Your task to perform on an android device: open app "Messenger Lite" (install if not already installed) and go to login screen Image 0: 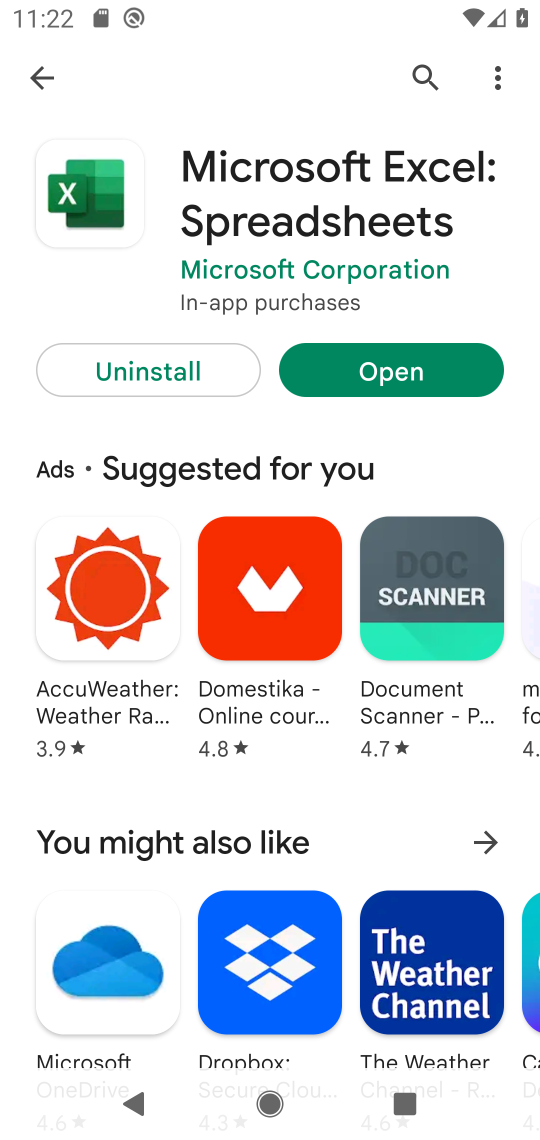
Step 0: click (427, 86)
Your task to perform on an android device: open app "Messenger Lite" (install if not already installed) and go to login screen Image 1: 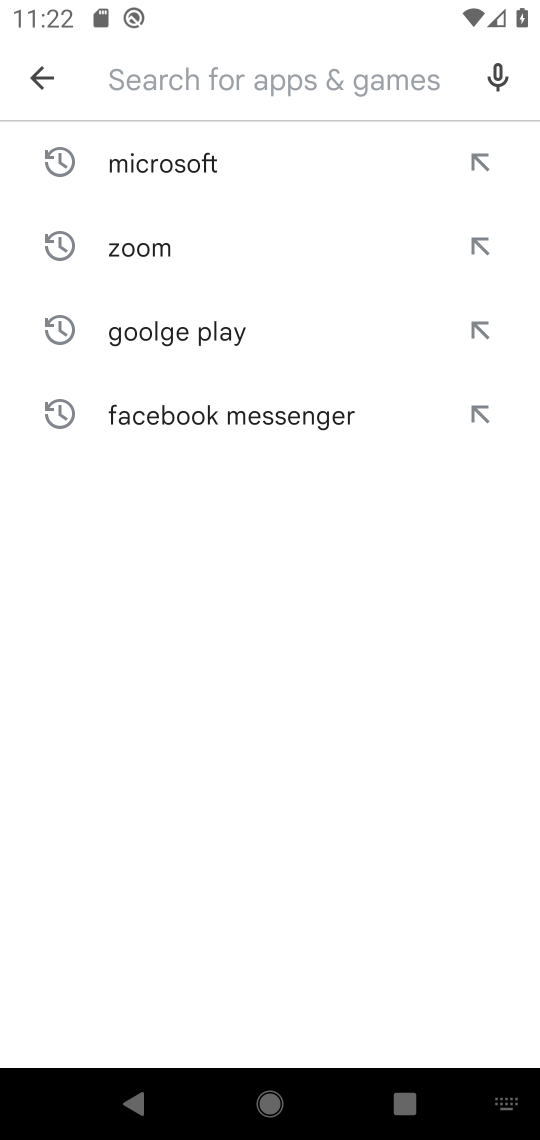
Step 1: type "messenger"
Your task to perform on an android device: open app "Messenger Lite" (install if not already installed) and go to login screen Image 2: 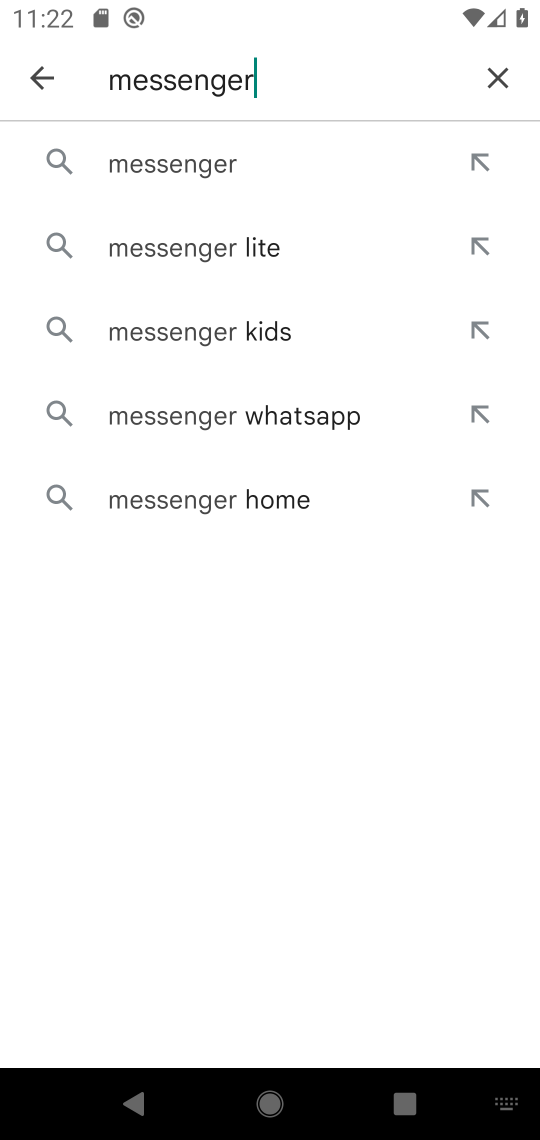
Step 2: click (212, 240)
Your task to perform on an android device: open app "Messenger Lite" (install if not already installed) and go to login screen Image 3: 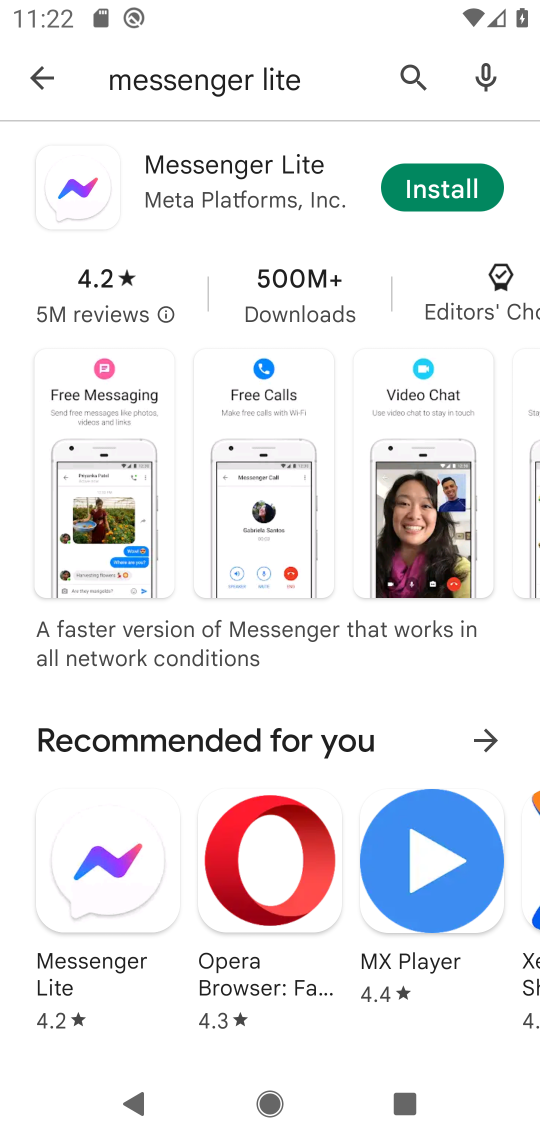
Step 3: click (423, 202)
Your task to perform on an android device: open app "Messenger Lite" (install if not already installed) and go to login screen Image 4: 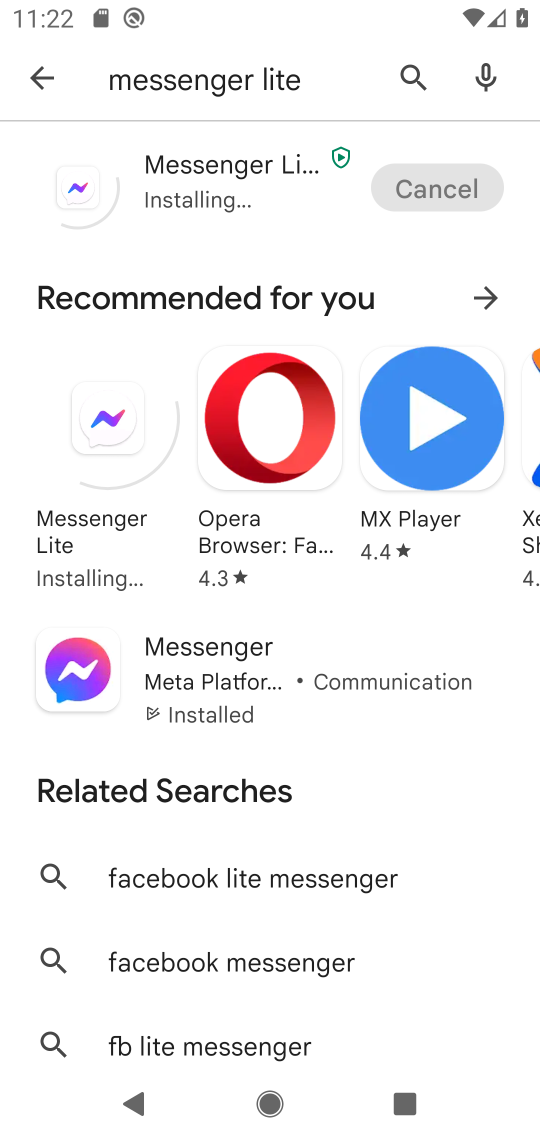
Step 4: task complete